Your task to perform on an android device: Open sound settings Image 0: 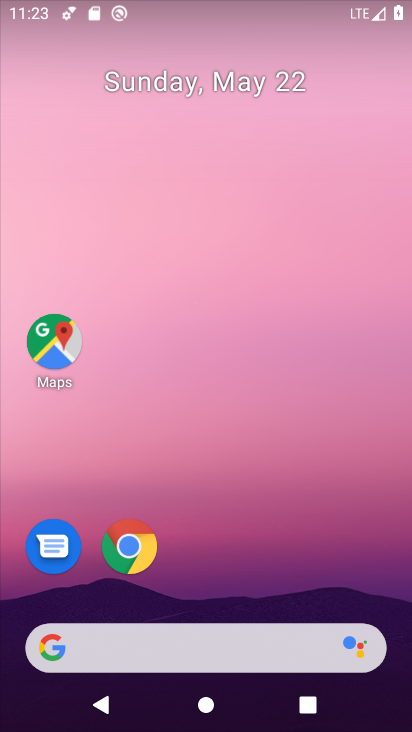
Step 0: drag from (217, 609) to (244, 150)
Your task to perform on an android device: Open sound settings Image 1: 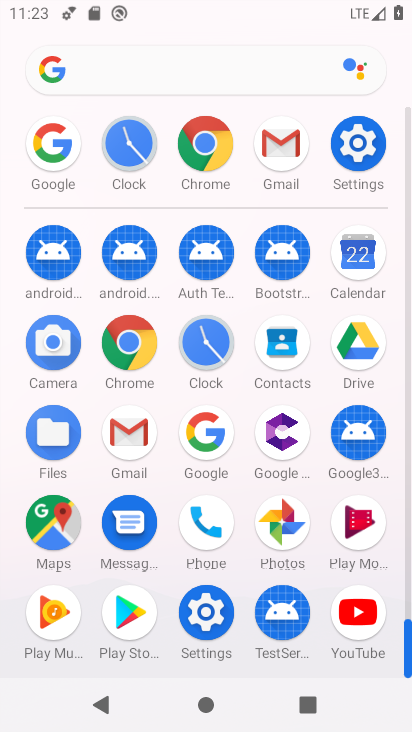
Step 1: click (359, 161)
Your task to perform on an android device: Open sound settings Image 2: 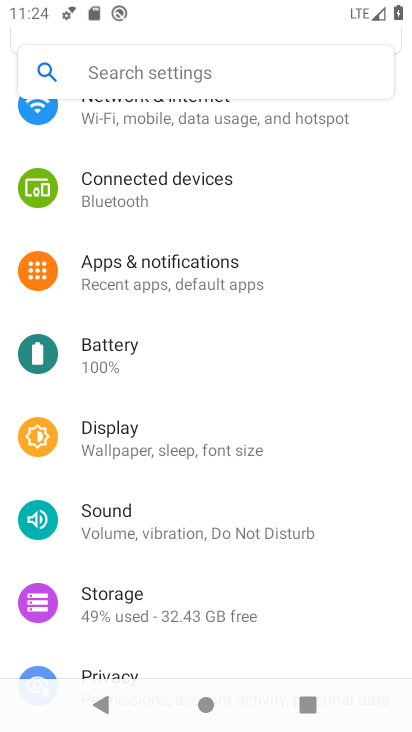
Step 2: drag from (208, 441) to (226, 331)
Your task to perform on an android device: Open sound settings Image 3: 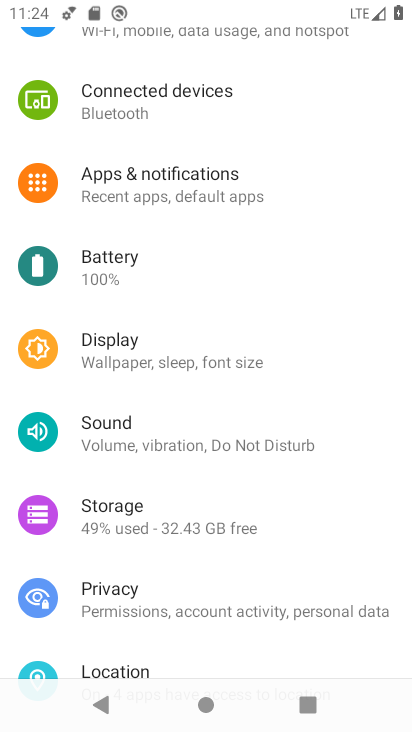
Step 3: click (202, 433)
Your task to perform on an android device: Open sound settings Image 4: 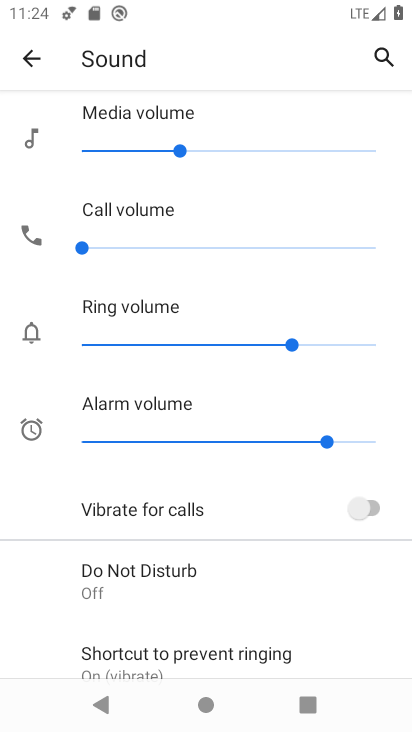
Step 4: task complete